Your task to perform on an android device: turn off location history Image 0: 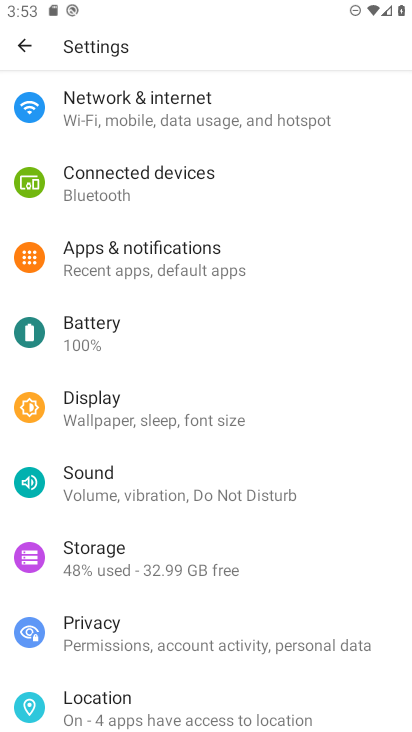
Step 0: click (116, 700)
Your task to perform on an android device: turn off location history Image 1: 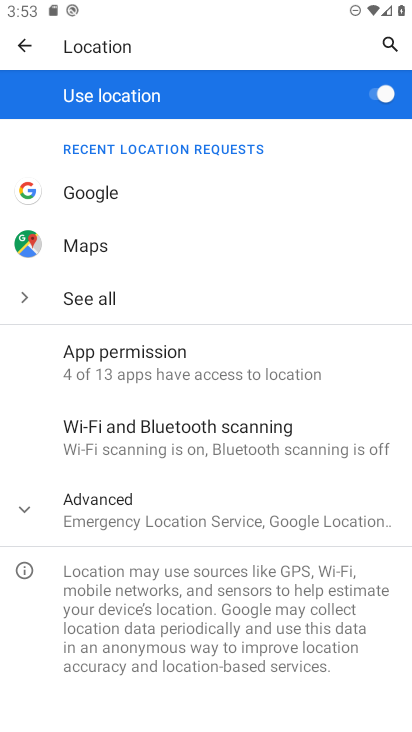
Step 1: click (160, 491)
Your task to perform on an android device: turn off location history Image 2: 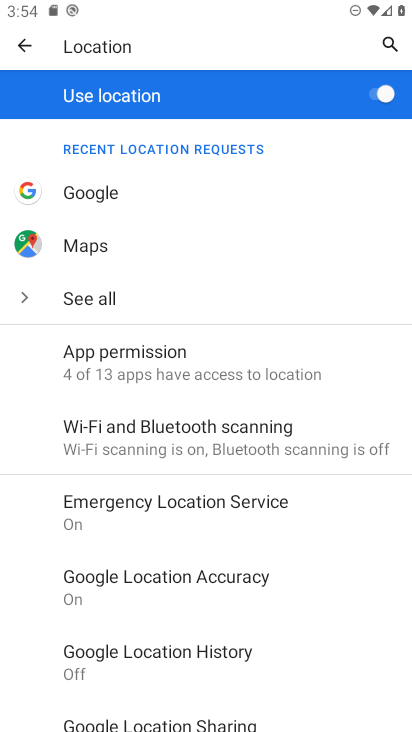
Step 2: click (204, 662)
Your task to perform on an android device: turn off location history Image 3: 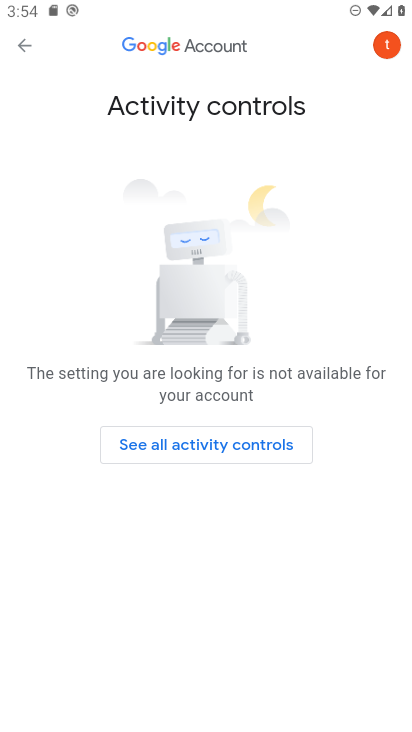
Step 3: press back button
Your task to perform on an android device: turn off location history Image 4: 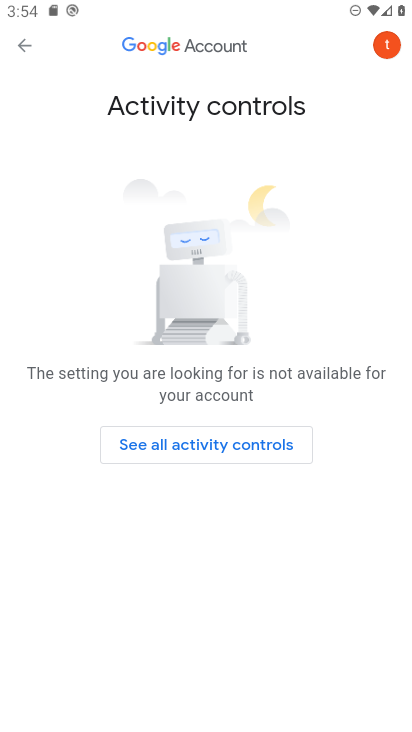
Step 4: press back button
Your task to perform on an android device: turn off location history Image 5: 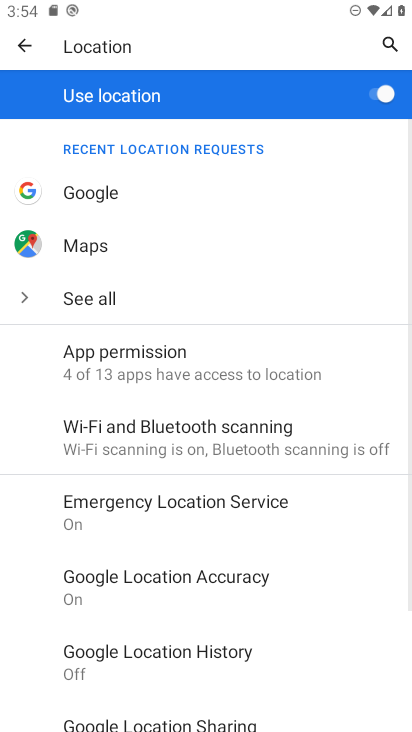
Step 5: click (183, 664)
Your task to perform on an android device: turn off location history Image 6: 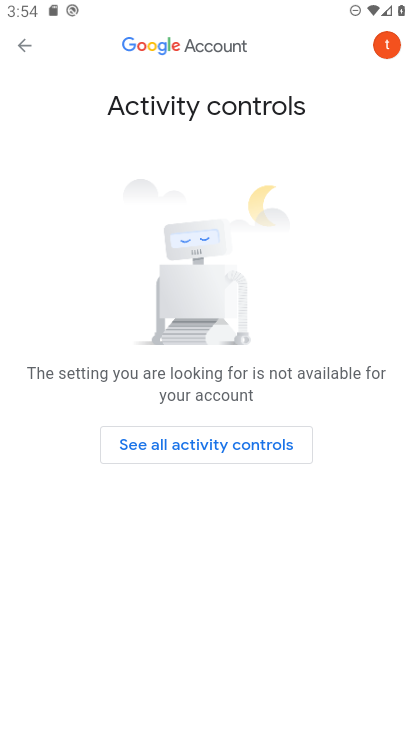
Step 6: task complete